Your task to perform on an android device: Go to Amazon Image 0: 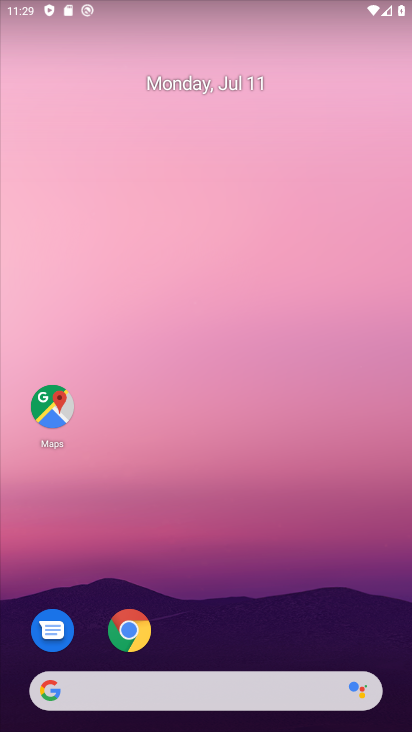
Step 0: click (132, 631)
Your task to perform on an android device: Go to Amazon Image 1: 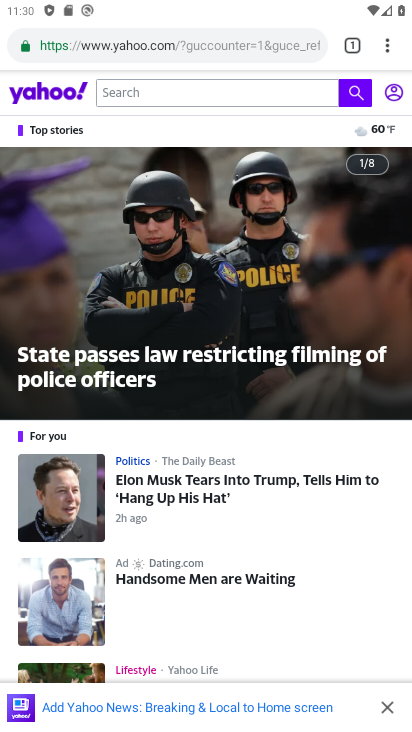
Step 1: click (290, 48)
Your task to perform on an android device: Go to Amazon Image 2: 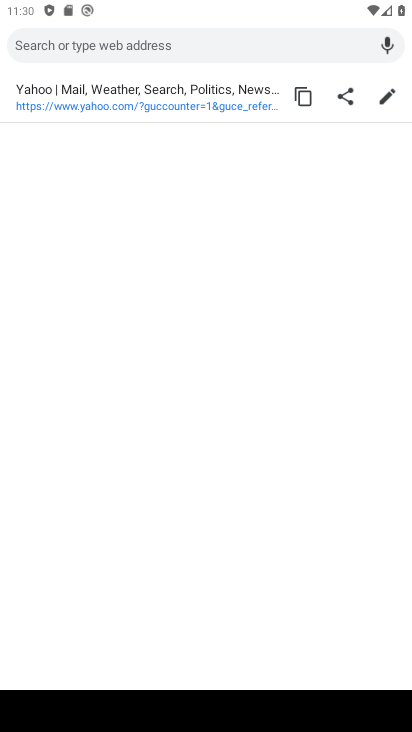
Step 2: type "Amazon"
Your task to perform on an android device: Go to Amazon Image 3: 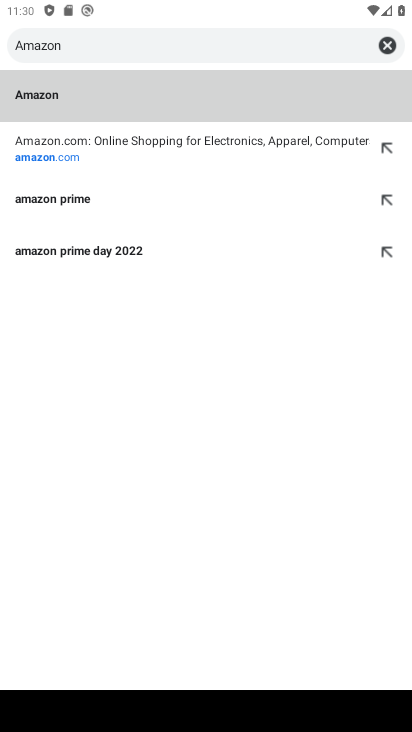
Step 3: click (82, 107)
Your task to perform on an android device: Go to Amazon Image 4: 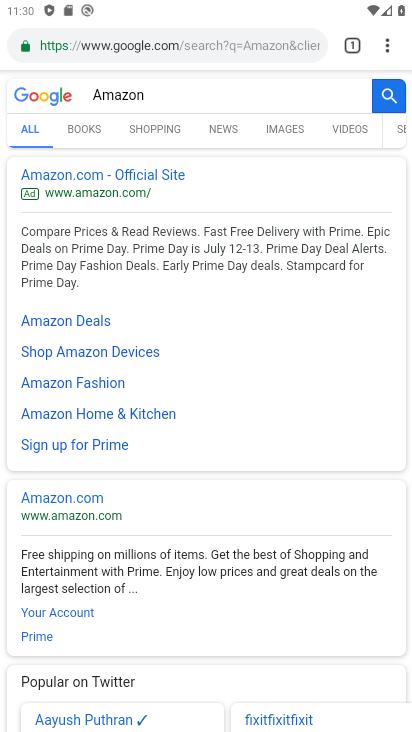
Step 4: click (65, 505)
Your task to perform on an android device: Go to Amazon Image 5: 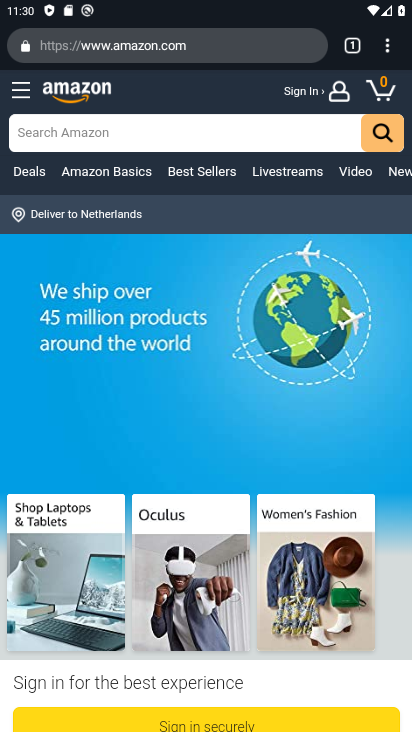
Step 5: task complete